Your task to perform on an android device: Open Google Image 0: 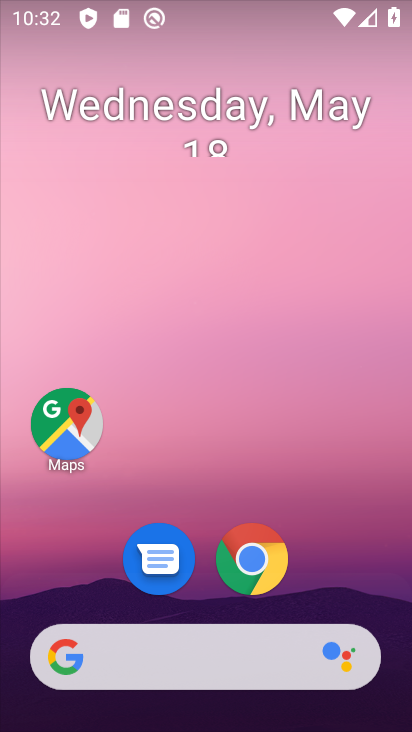
Step 0: drag from (185, 546) to (200, 254)
Your task to perform on an android device: Open Google Image 1: 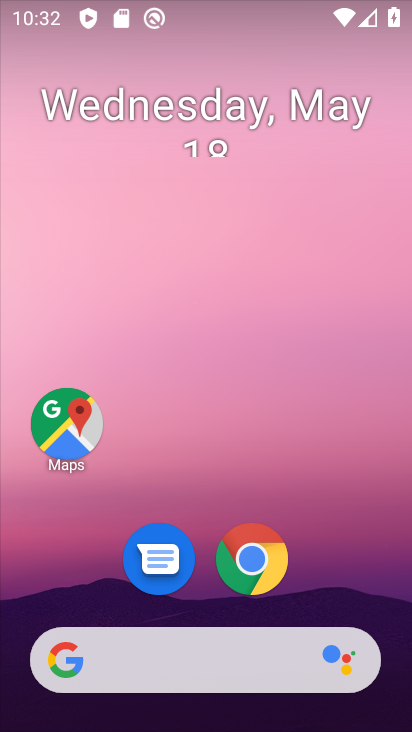
Step 1: drag from (184, 597) to (249, 80)
Your task to perform on an android device: Open Google Image 2: 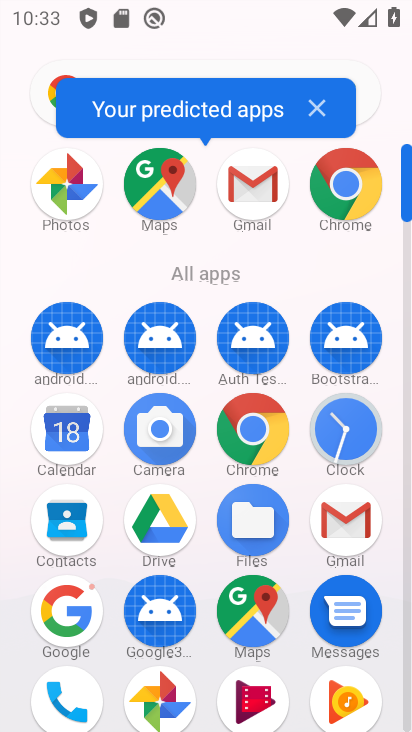
Step 2: click (76, 620)
Your task to perform on an android device: Open Google Image 3: 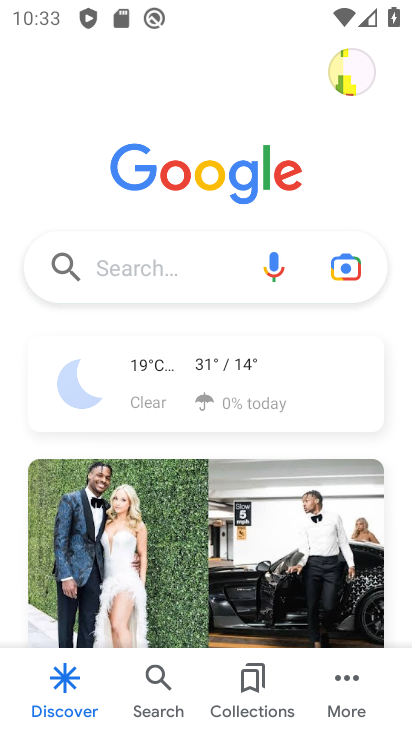
Step 3: task complete